Your task to perform on an android device: Open maps Image 0: 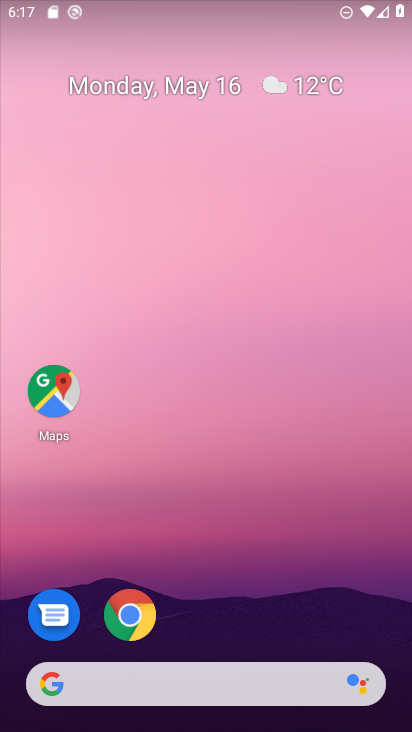
Step 0: click (56, 390)
Your task to perform on an android device: Open maps Image 1: 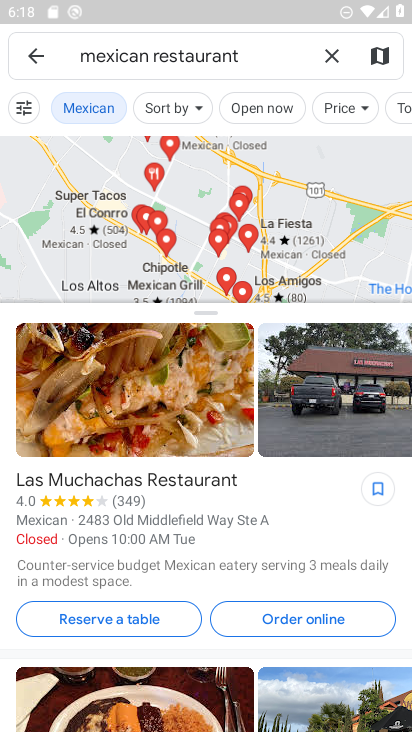
Step 1: task complete